Your task to perform on an android device: open chrome and create a bookmark for the current page Image 0: 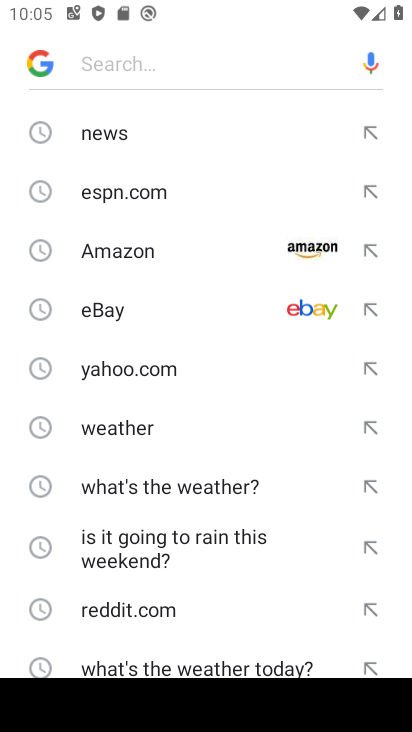
Step 0: press home button
Your task to perform on an android device: open chrome and create a bookmark for the current page Image 1: 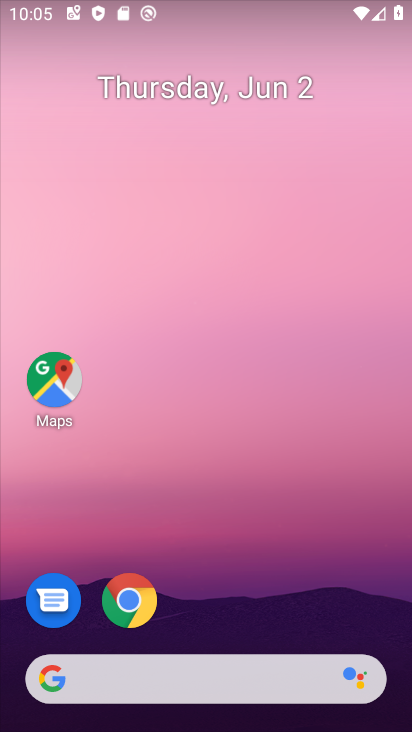
Step 1: click (125, 619)
Your task to perform on an android device: open chrome and create a bookmark for the current page Image 2: 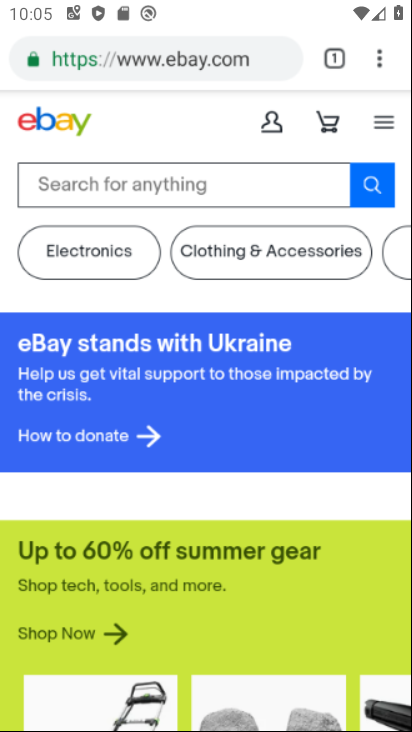
Step 2: click (376, 60)
Your task to perform on an android device: open chrome and create a bookmark for the current page Image 3: 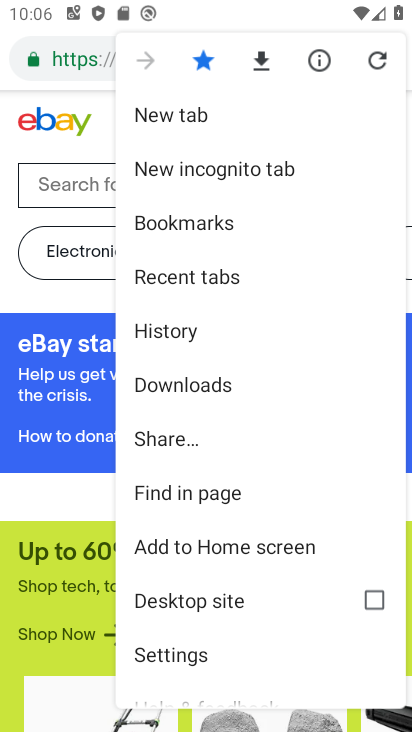
Step 3: task complete